Your task to perform on an android device: Go to accessibility settings Image 0: 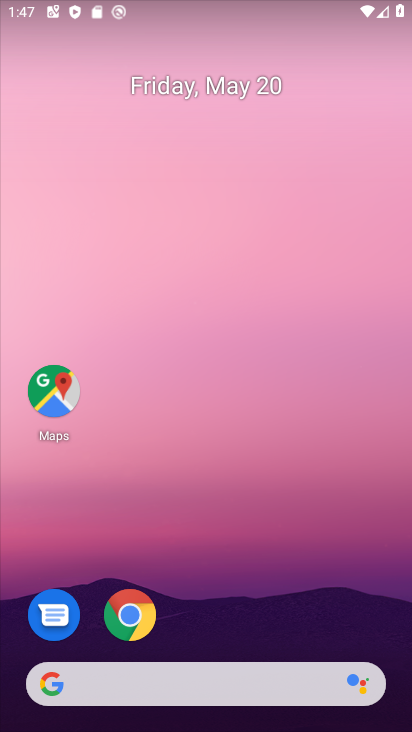
Step 0: drag from (225, 559) to (233, 234)
Your task to perform on an android device: Go to accessibility settings Image 1: 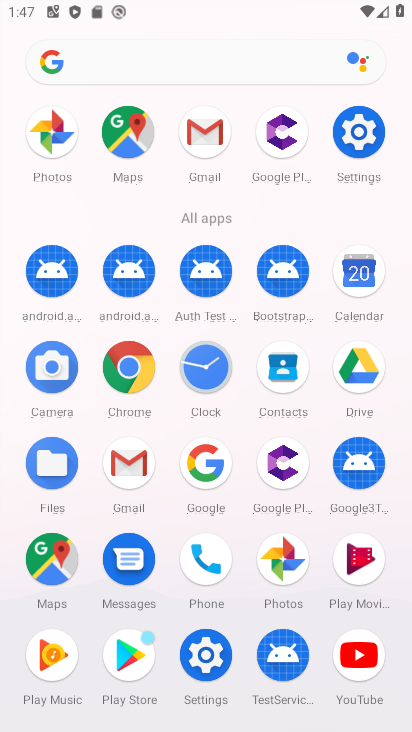
Step 1: click (358, 132)
Your task to perform on an android device: Go to accessibility settings Image 2: 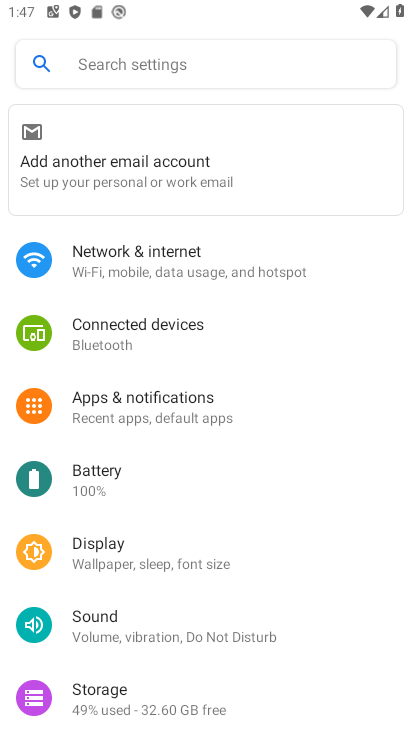
Step 2: drag from (225, 588) to (263, 146)
Your task to perform on an android device: Go to accessibility settings Image 3: 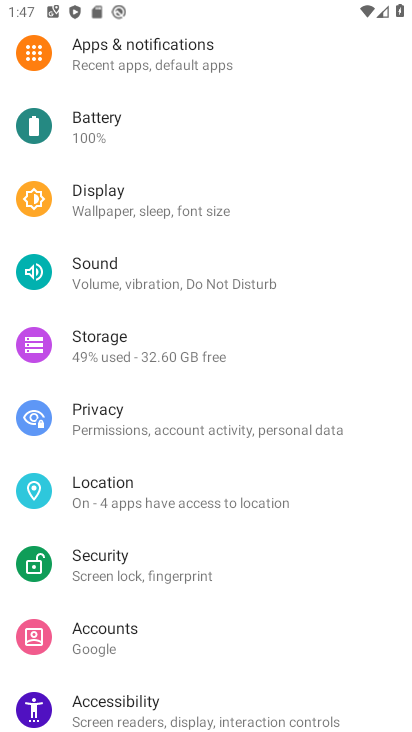
Step 3: drag from (191, 609) to (216, 321)
Your task to perform on an android device: Go to accessibility settings Image 4: 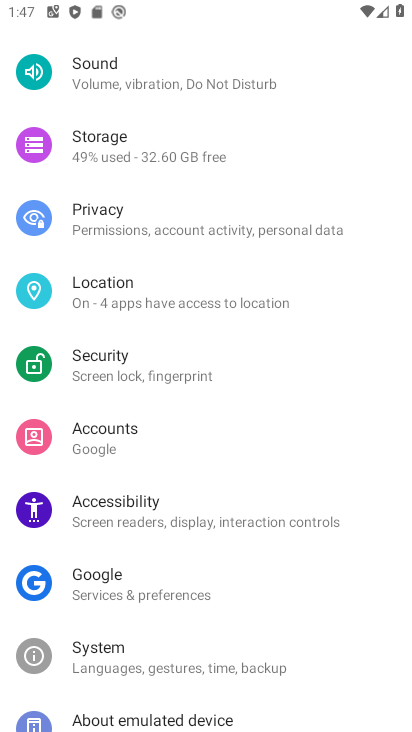
Step 4: click (183, 506)
Your task to perform on an android device: Go to accessibility settings Image 5: 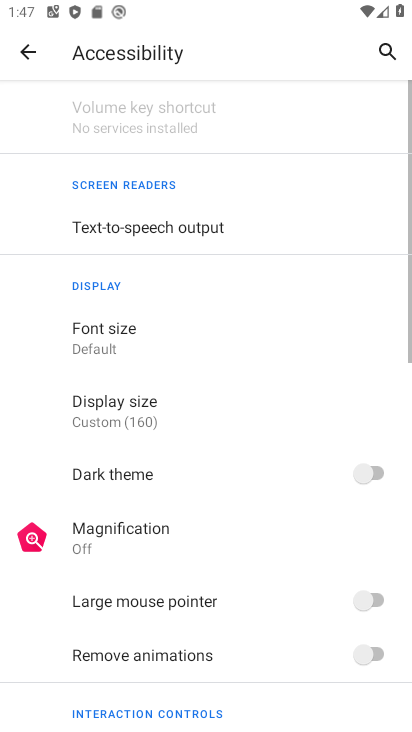
Step 5: task complete